Your task to perform on an android device: clear all cookies in the chrome app Image 0: 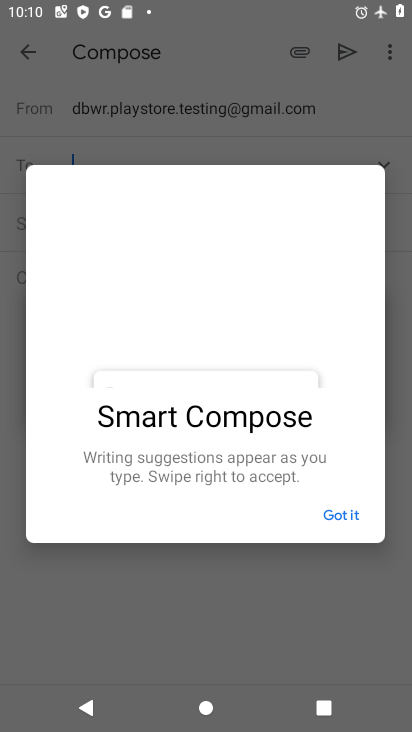
Step 0: press home button
Your task to perform on an android device: clear all cookies in the chrome app Image 1: 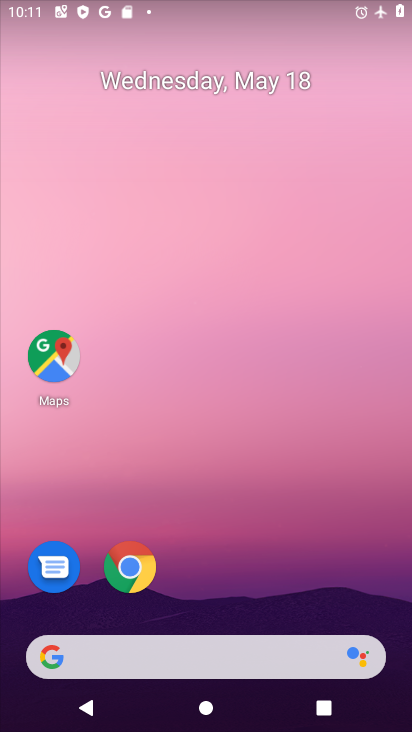
Step 1: click (132, 581)
Your task to perform on an android device: clear all cookies in the chrome app Image 2: 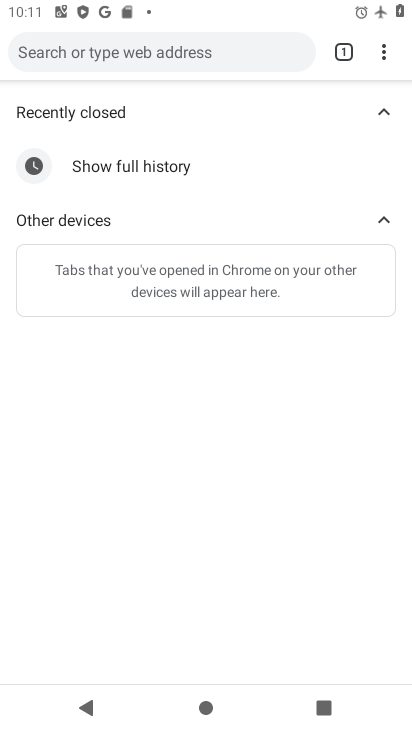
Step 2: drag from (383, 49) to (200, 299)
Your task to perform on an android device: clear all cookies in the chrome app Image 3: 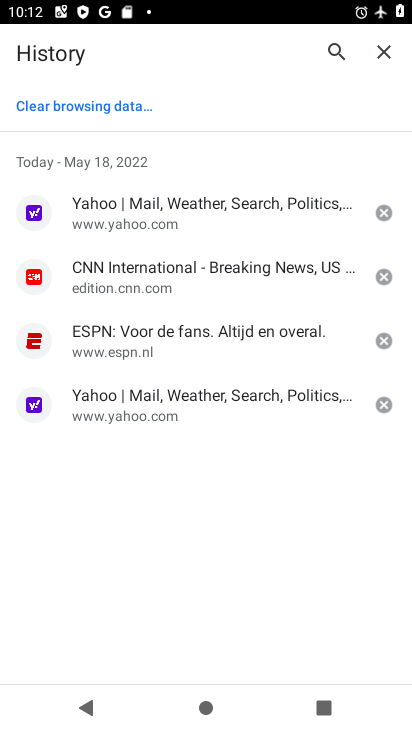
Step 3: click (61, 104)
Your task to perform on an android device: clear all cookies in the chrome app Image 4: 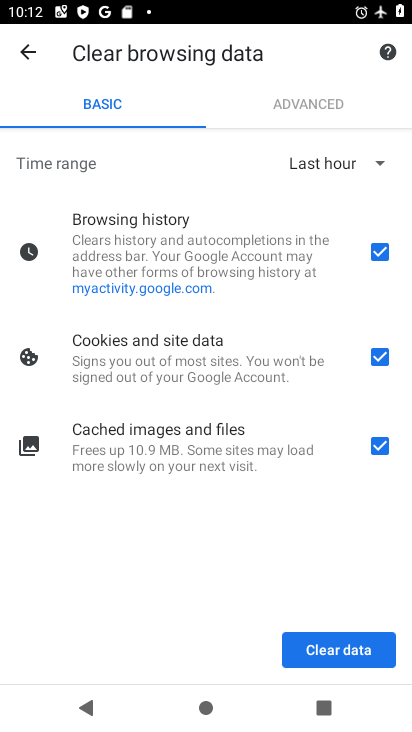
Step 4: click (334, 652)
Your task to perform on an android device: clear all cookies in the chrome app Image 5: 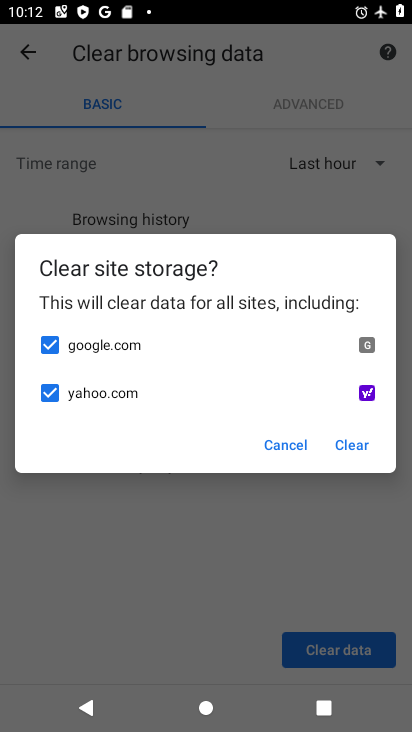
Step 5: click (346, 447)
Your task to perform on an android device: clear all cookies in the chrome app Image 6: 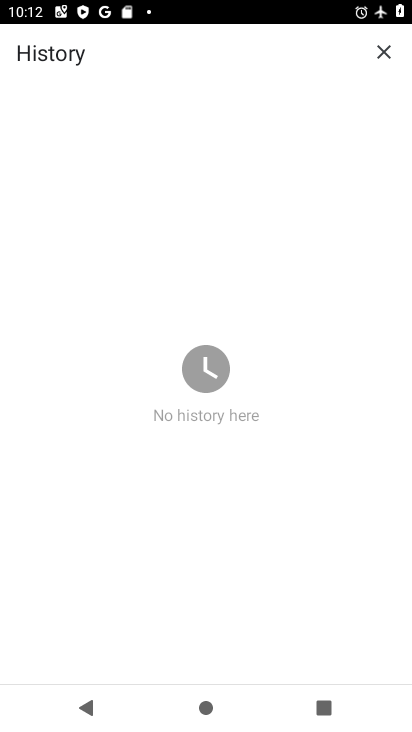
Step 6: task complete